Your task to perform on an android device: change the clock display to analog Image 0: 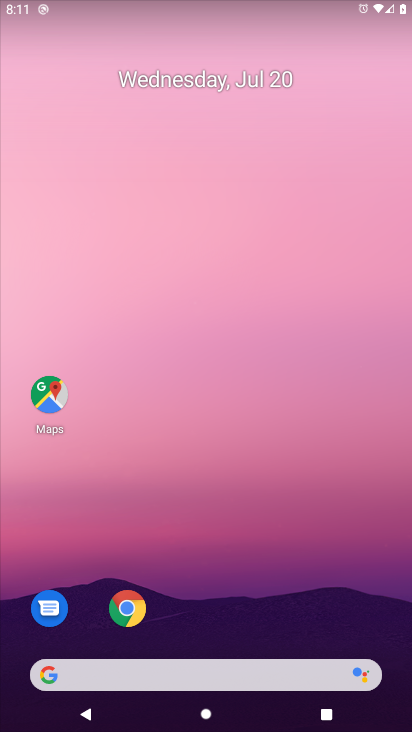
Step 0: drag from (220, 651) to (189, 3)
Your task to perform on an android device: change the clock display to analog Image 1: 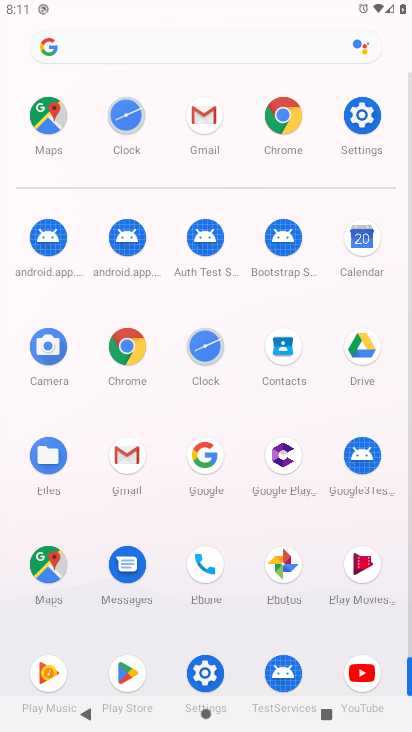
Step 1: click (372, 126)
Your task to perform on an android device: change the clock display to analog Image 2: 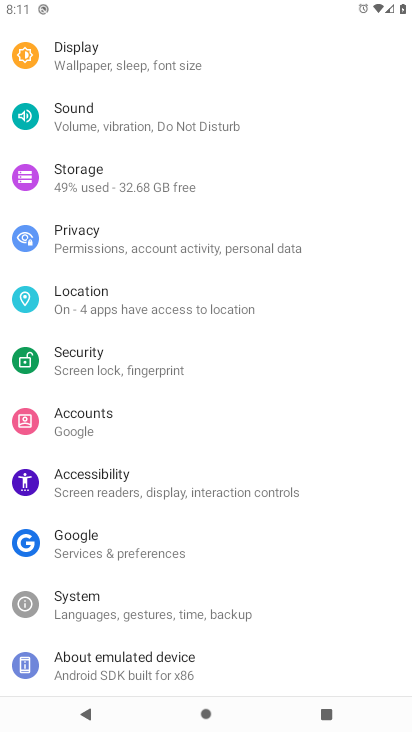
Step 2: press home button
Your task to perform on an android device: change the clock display to analog Image 3: 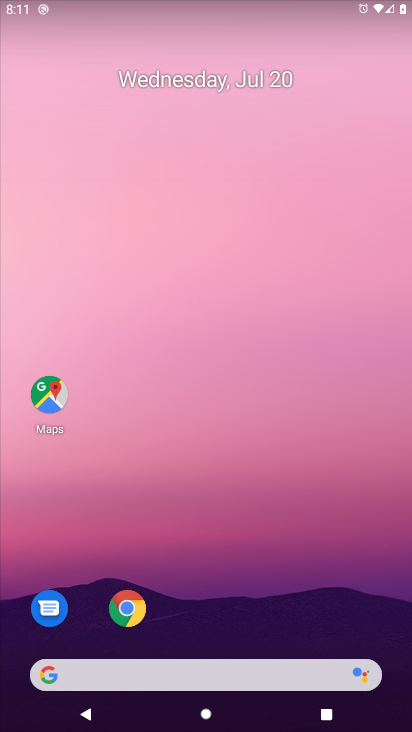
Step 3: drag from (196, 600) to (232, 15)
Your task to perform on an android device: change the clock display to analog Image 4: 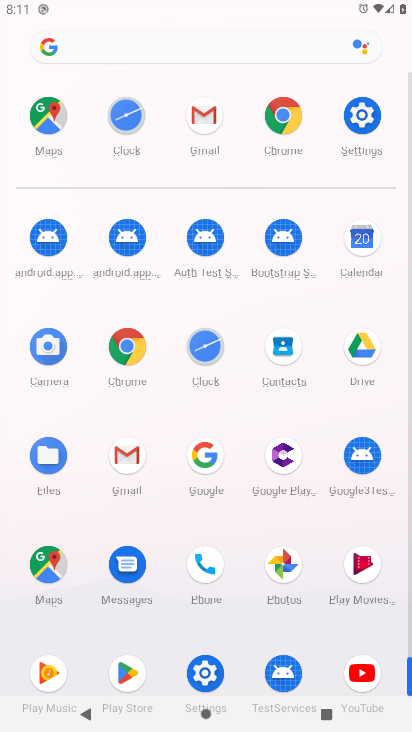
Step 4: click (208, 367)
Your task to perform on an android device: change the clock display to analog Image 5: 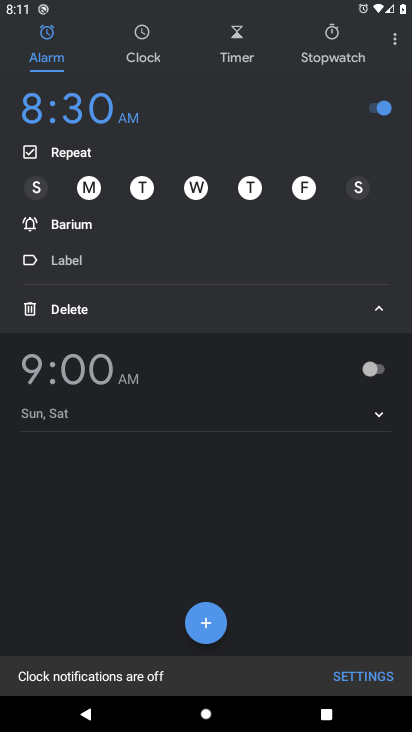
Step 5: click (390, 37)
Your task to perform on an android device: change the clock display to analog Image 6: 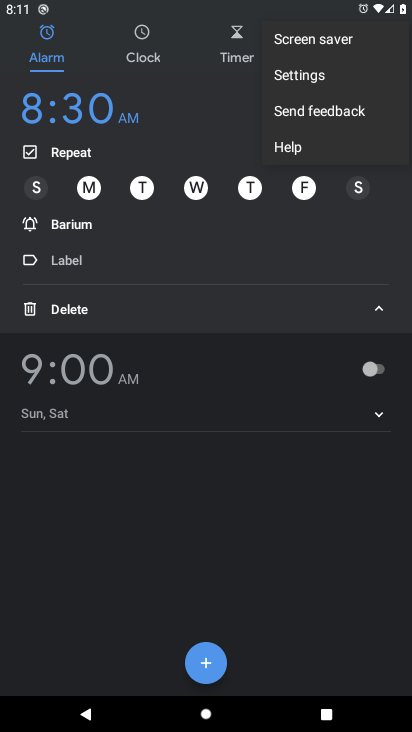
Step 6: click (299, 77)
Your task to perform on an android device: change the clock display to analog Image 7: 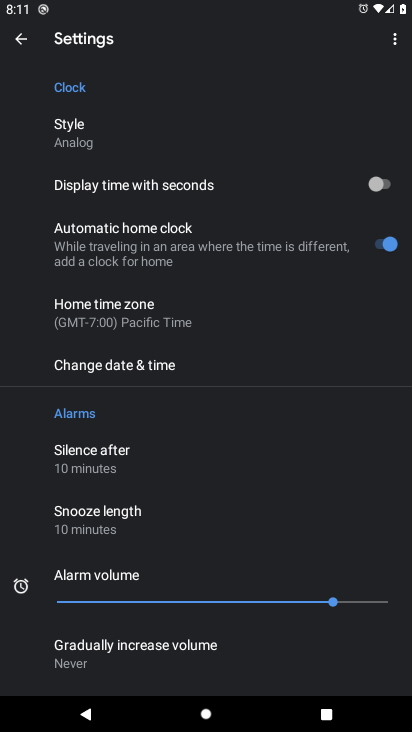
Step 7: task complete